Your task to perform on an android device: turn off airplane mode Image 0: 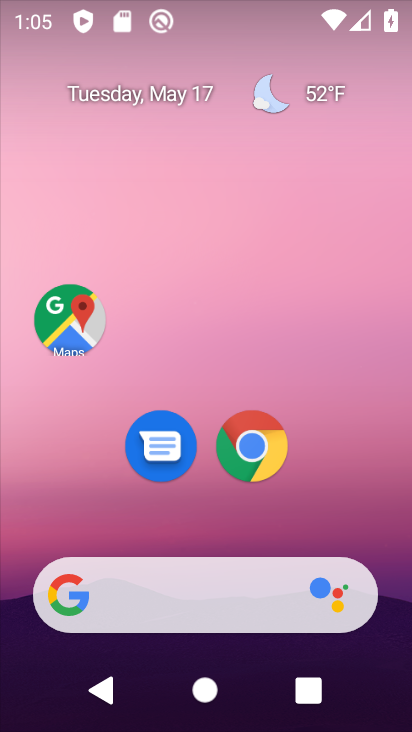
Step 0: drag from (312, 20) to (379, 461)
Your task to perform on an android device: turn off airplane mode Image 1: 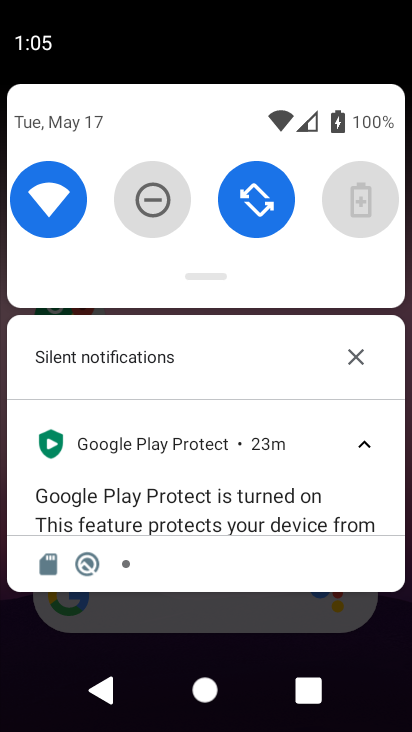
Step 1: task complete